Your task to perform on an android device: Search for vegetarian restaurants on Maps Image 0: 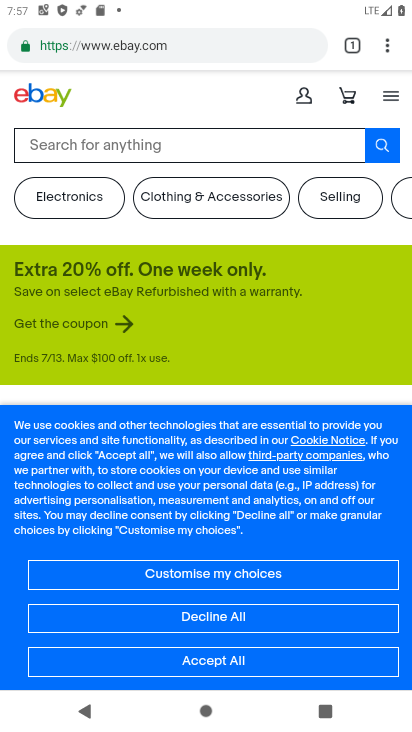
Step 0: press home button
Your task to perform on an android device: Search for vegetarian restaurants on Maps Image 1: 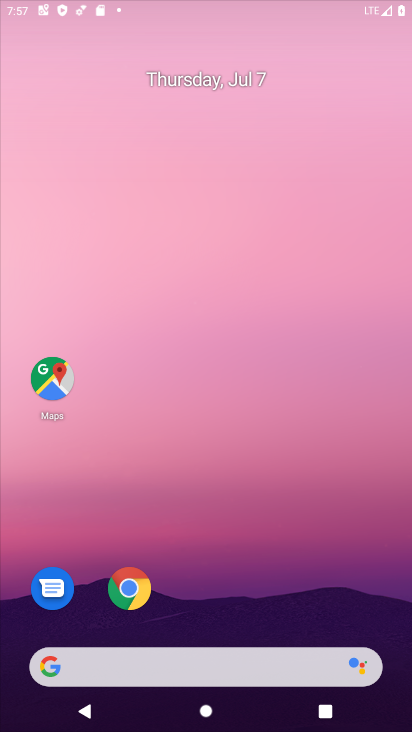
Step 1: drag from (312, 630) to (301, 213)
Your task to perform on an android device: Search for vegetarian restaurants on Maps Image 2: 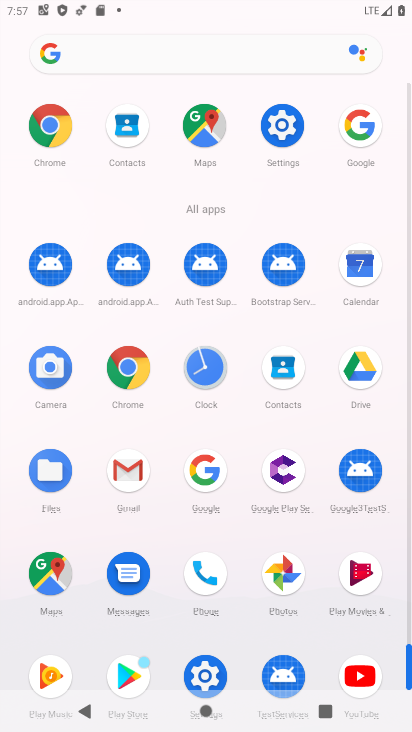
Step 2: click (207, 132)
Your task to perform on an android device: Search for vegetarian restaurants on Maps Image 3: 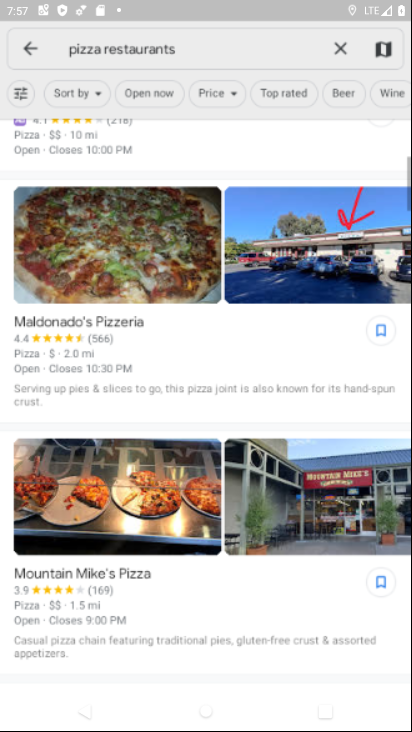
Step 3: click (208, 57)
Your task to perform on an android device: Search for vegetarian restaurants on Maps Image 4: 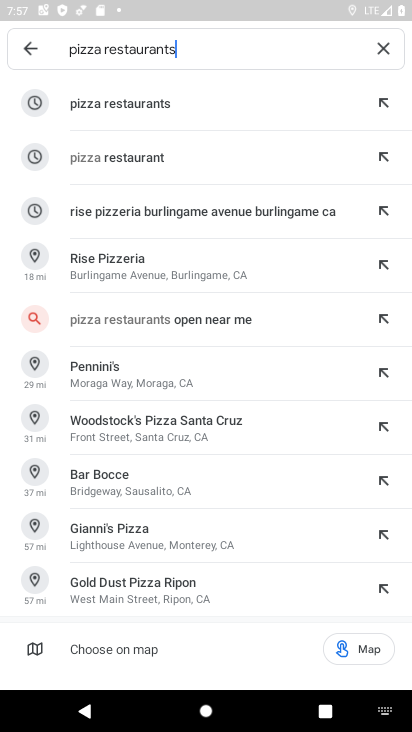
Step 4: click (384, 41)
Your task to perform on an android device: Search for vegetarian restaurants on Maps Image 5: 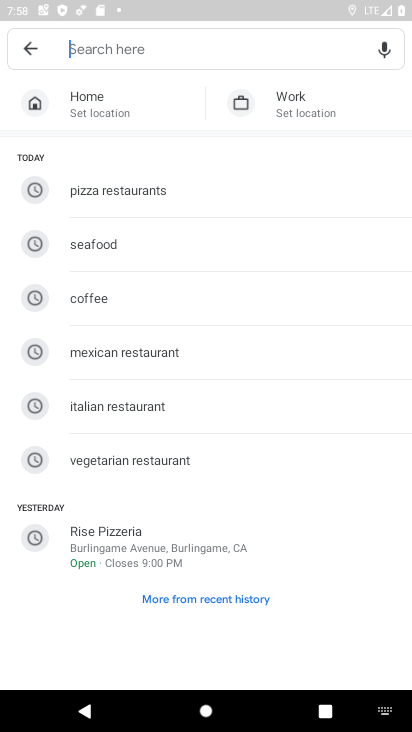
Step 5: type "vegetarian restaurants"
Your task to perform on an android device: Search for vegetarian restaurants on Maps Image 6: 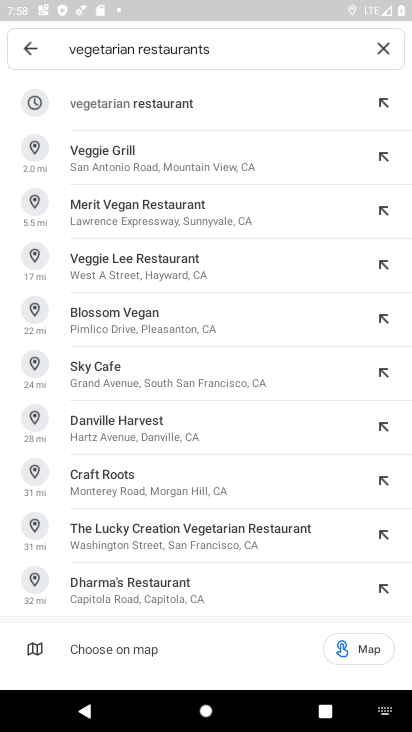
Step 6: press enter
Your task to perform on an android device: Search for vegetarian restaurants on Maps Image 7: 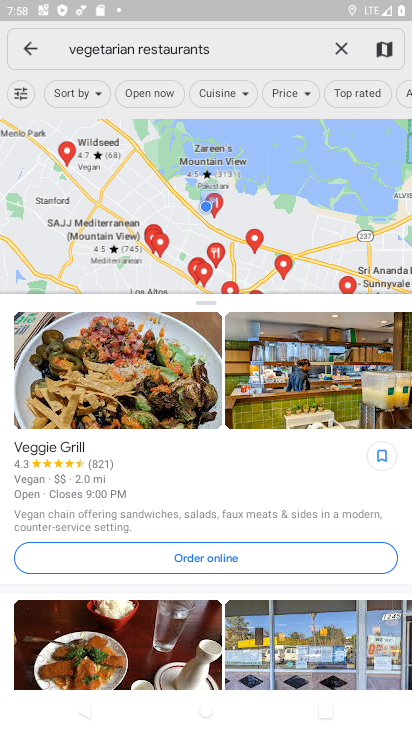
Step 7: task complete